Your task to perform on an android device: toggle wifi Image 0: 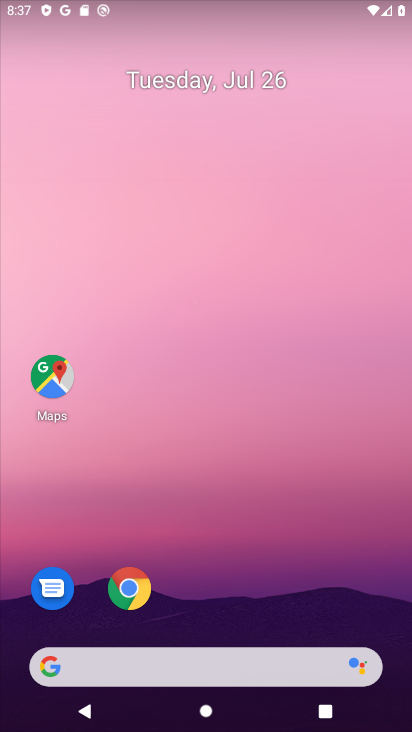
Step 0: click (172, 9)
Your task to perform on an android device: toggle wifi Image 1: 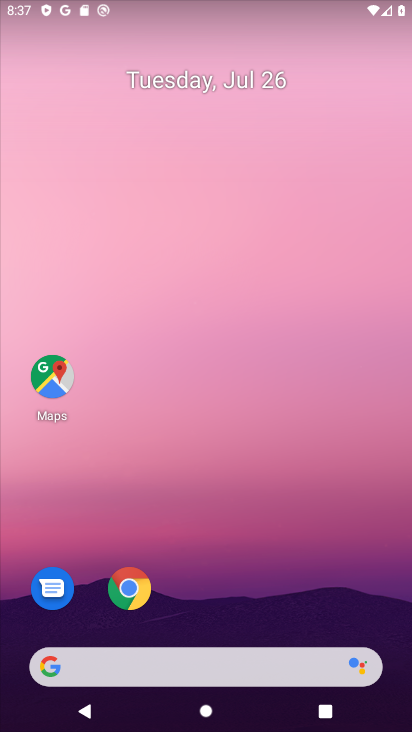
Step 1: drag from (175, 8) to (200, 530)
Your task to perform on an android device: toggle wifi Image 2: 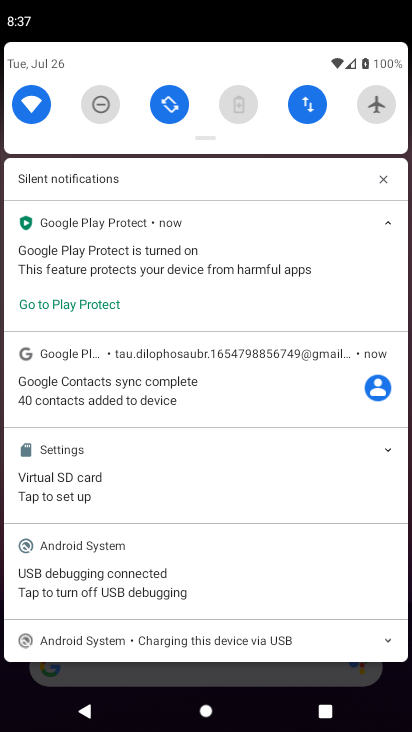
Step 2: click (27, 110)
Your task to perform on an android device: toggle wifi Image 3: 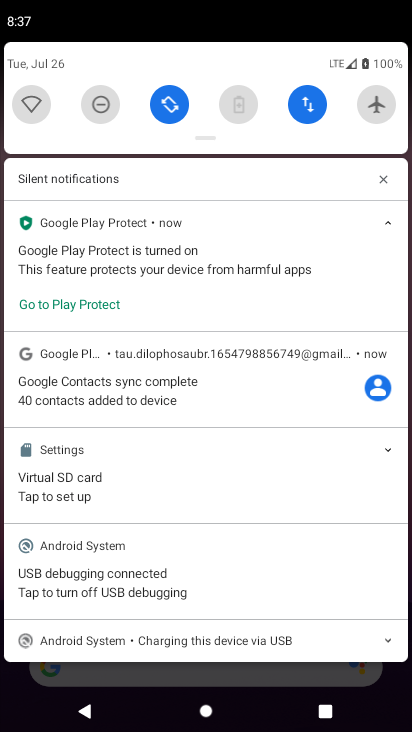
Step 3: task complete